Your task to perform on an android device: turn off smart reply in the gmail app Image 0: 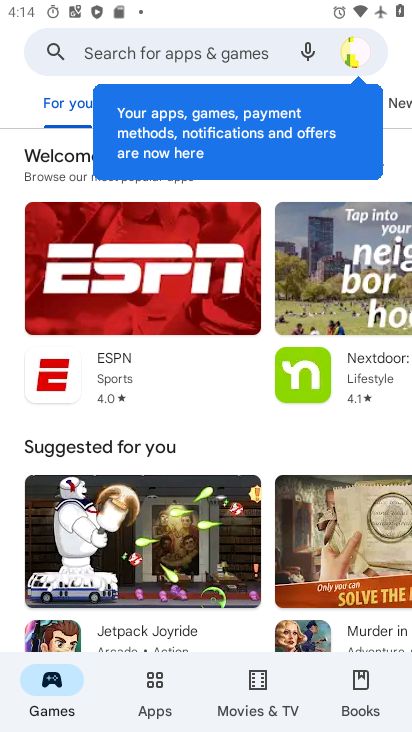
Step 0: press back button
Your task to perform on an android device: turn off smart reply in the gmail app Image 1: 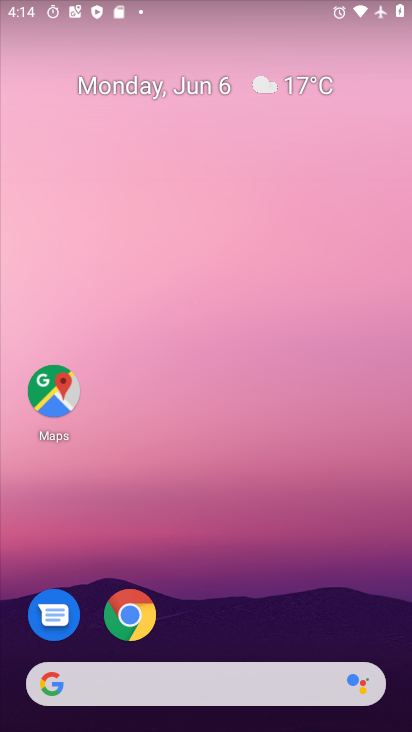
Step 1: drag from (261, 571) to (242, 98)
Your task to perform on an android device: turn off smart reply in the gmail app Image 2: 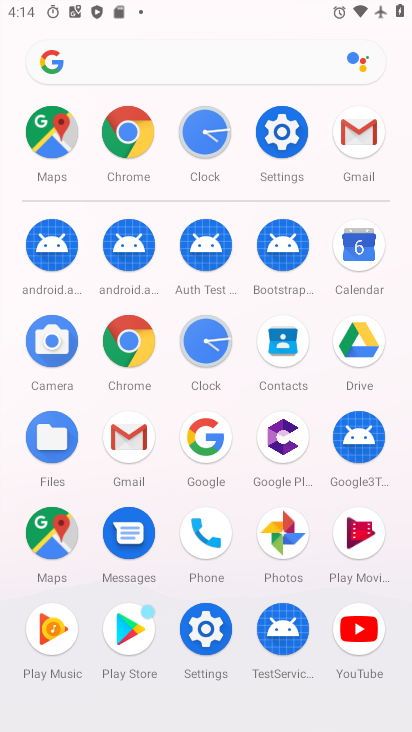
Step 2: click (345, 118)
Your task to perform on an android device: turn off smart reply in the gmail app Image 3: 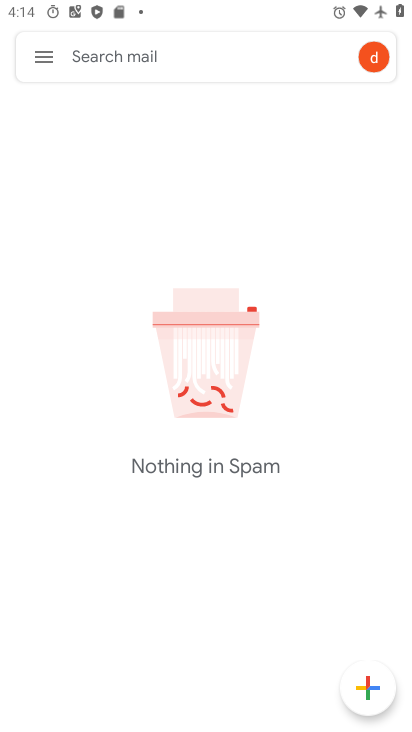
Step 3: click (44, 47)
Your task to perform on an android device: turn off smart reply in the gmail app Image 4: 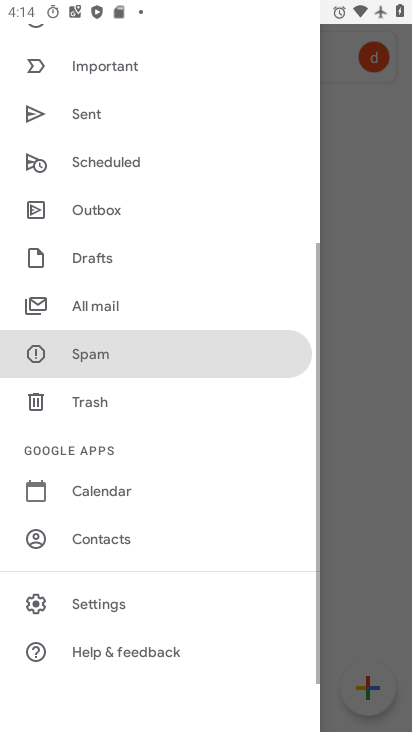
Step 4: drag from (208, 401) to (201, 140)
Your task to perform on an android device: turn off smart reply in the gmail app Image 5: 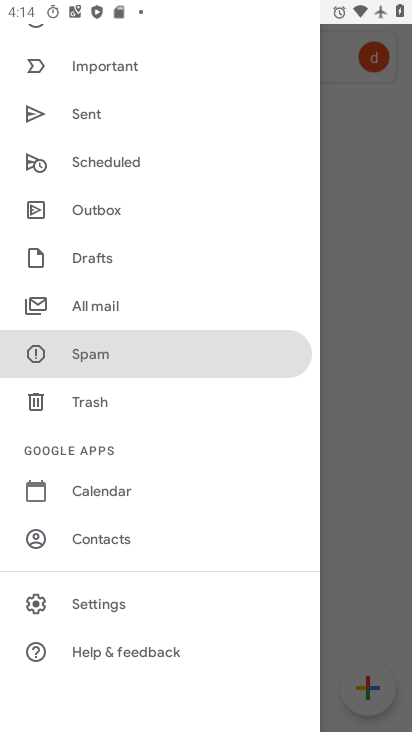
Step 5: drag from (264, 632) to (254, 322)
Your task to perform on an android device: turn off smart reply in the gmail app Image 6: 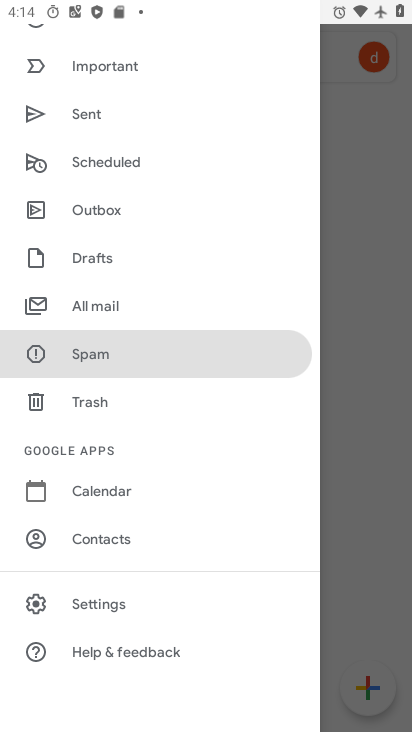
Step 6: click (113, 595)
Your task to perform on an android device: turn off smart reply in the gmail app Image 7: 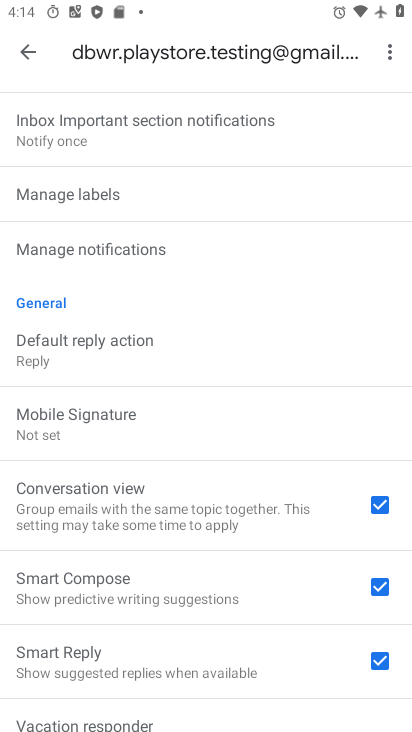
Step 7: drag from (203, 557) to (230, 216)
Your task to perform on an android device: turn off smart reply in the gmail app Image 8: 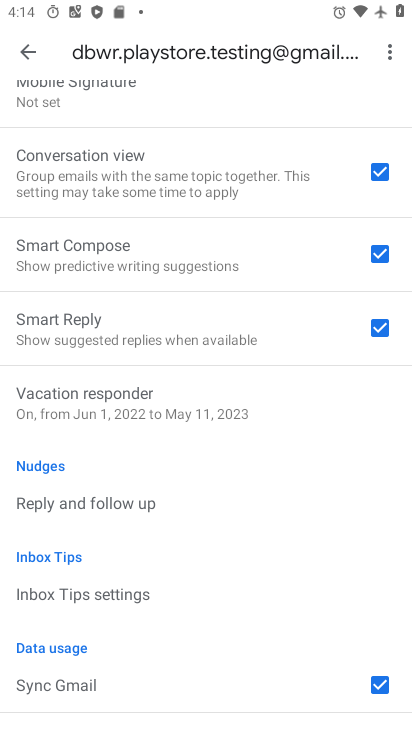
Step 8: drag from (286, 246) to (246, 571)
Your task to perform on an android device: turn off smart reply in the gmail app Image 9: 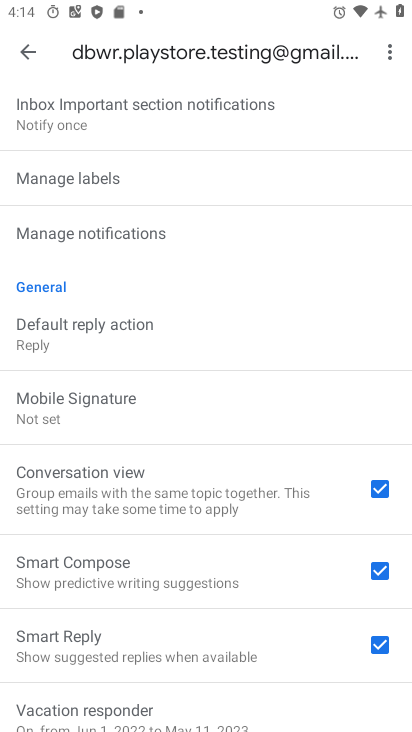
Step 9: drag from (214, 504) to (250, 210)
Your task to perform on an android device: turn off smart reply in the gmail app Image 10: 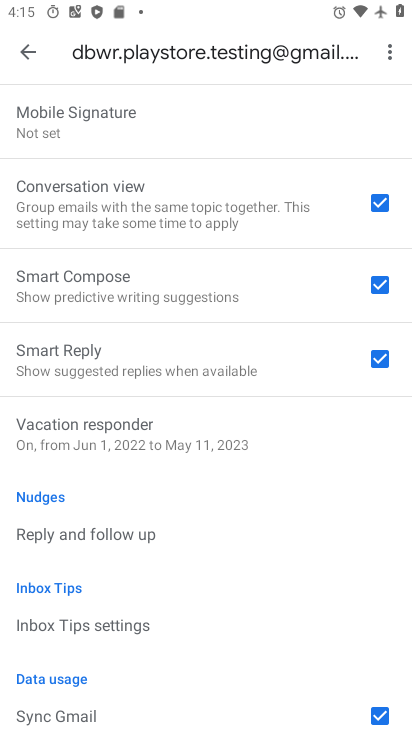
Step 10: drag from (234, 523) to (237, 226)
Your task to perform on an android device: turn off smart reply in the gmail app Image 11: 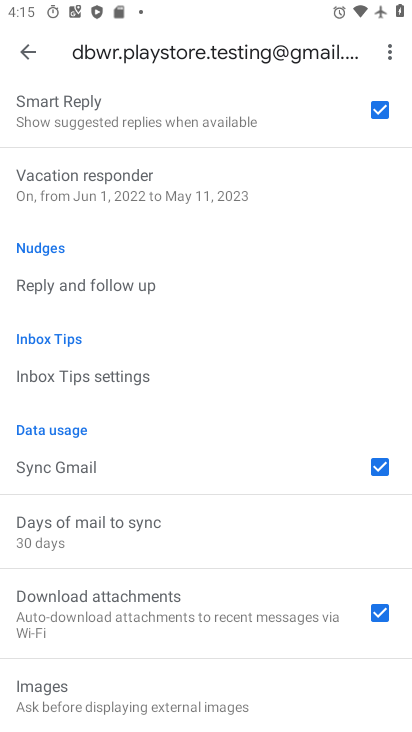
Step 11: drag from (248, 225) to (252, 186)
Your task to perform on an android device: turn off smart reply in the gmail app Image 12: 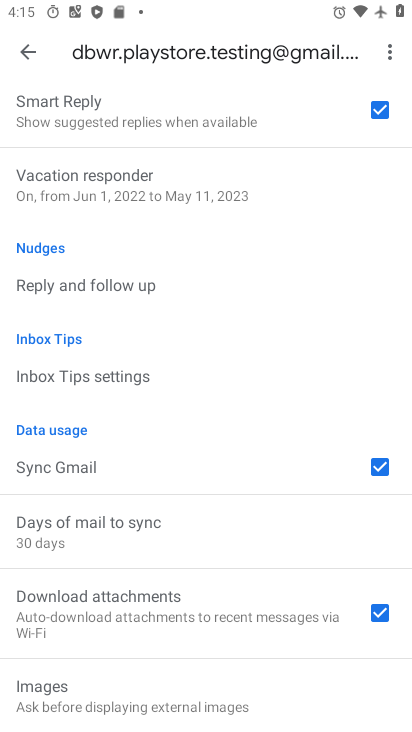
Step 12: drag from (202, 643) to (227, 212)
Your task to perform on an android device: turn off smart reply in the gmail app Image 13: 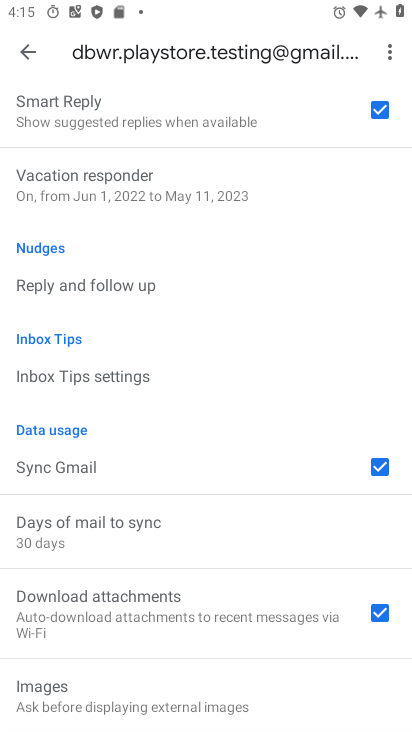
Step 13: drag from (231, 232) to (206, 577)
Your task to perform on an android device: turn off smart reply in the gmail app Image 14: 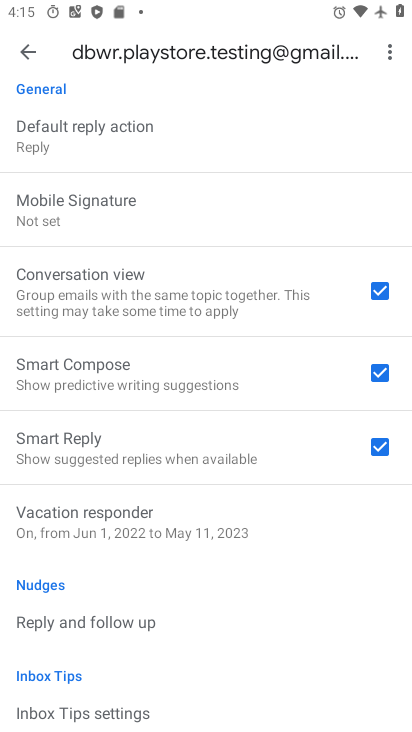
Step 14: click (371, 454)
Your task to perform on an android device: turn off smart reply in the gmail app Image 15: 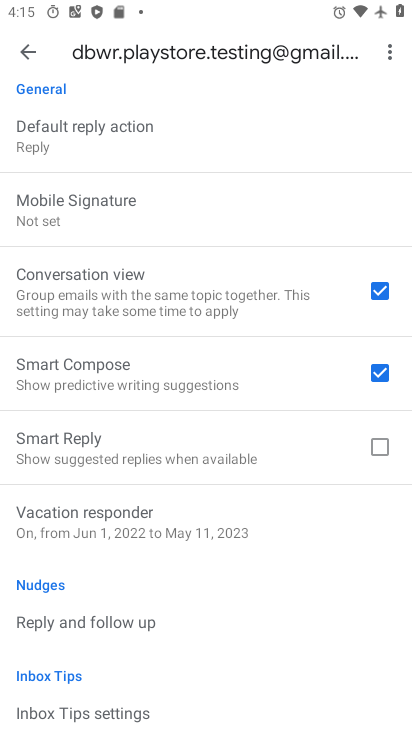
Step 15: task complete